Your task to perform on an android device: Open calendar and show me the second week of next month Image 0: 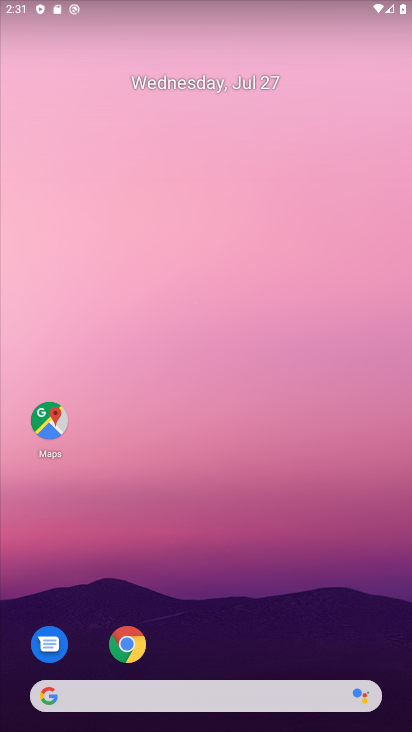
Step 0: drag from (216, 605) to (222, 0)
Your task to perform on an android device: Open calendar and show me the second week of next month Image 1: 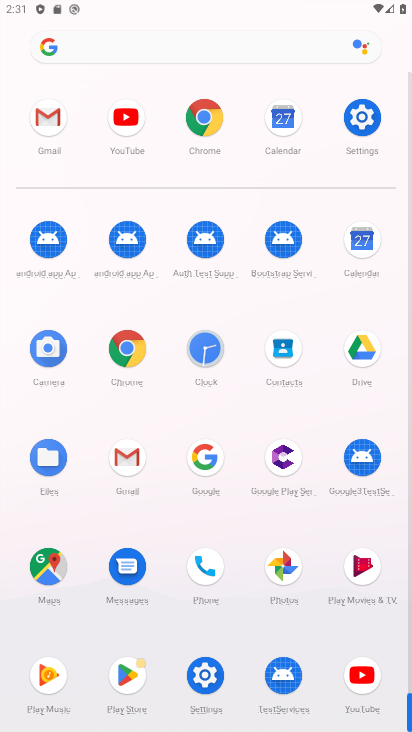
Step 1: click (362, 255)
Your task to perform on an android device: Open calendar and show me the second week of next month Image 2: 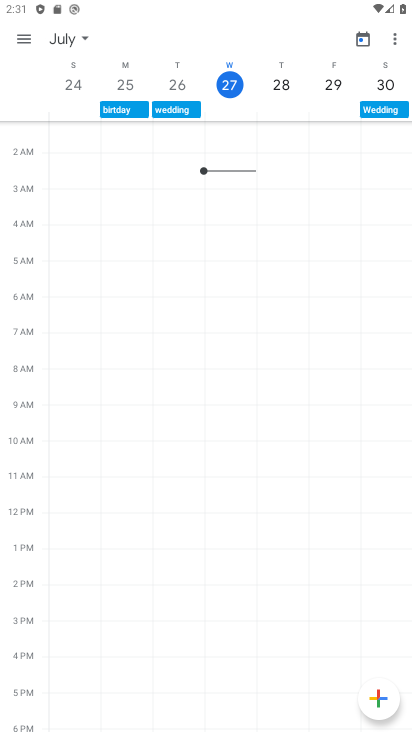
Step 2: task complete